Your task to perform on an android device: open a bookmark in the chrome app Image 0: 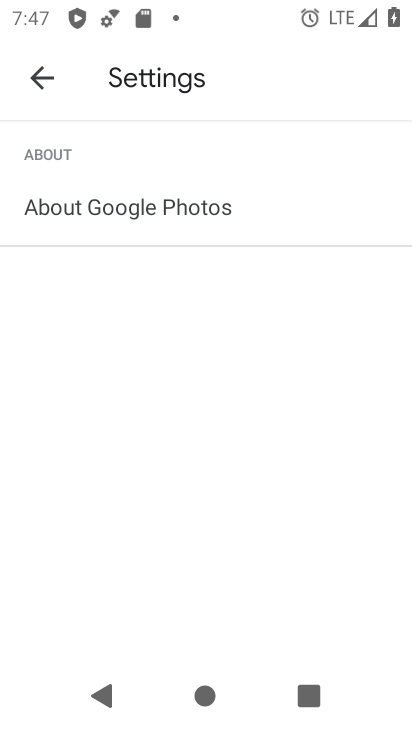
Step 0: press home button
Your task to perform on an android device: open a bookmark in the chrome app Image 1: 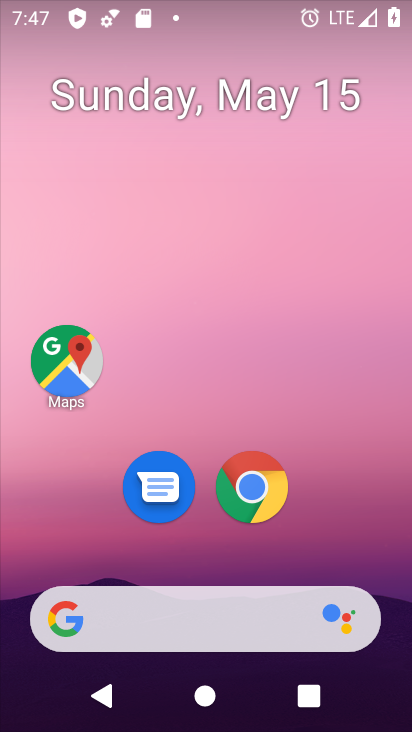
Step 1: drag from (352, 521) to (355, 209)
Your task to perform on an android device: open a bookmark in the chrome app Image 2: 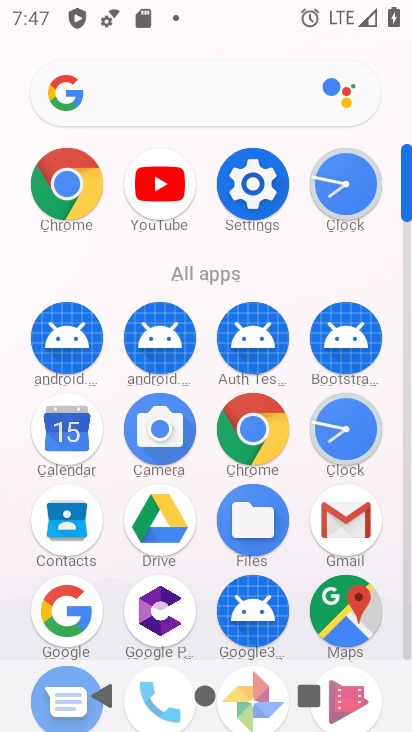
Step 2: click (61, 201)
Your task to perform on an android device: open a bookmark in the chrome app Image 3: 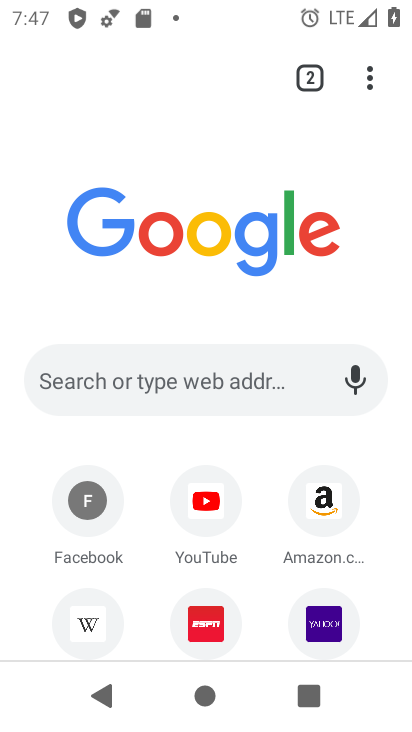
Step 3: task complete